Your task to perform on an android device: Go to Google Image 0: 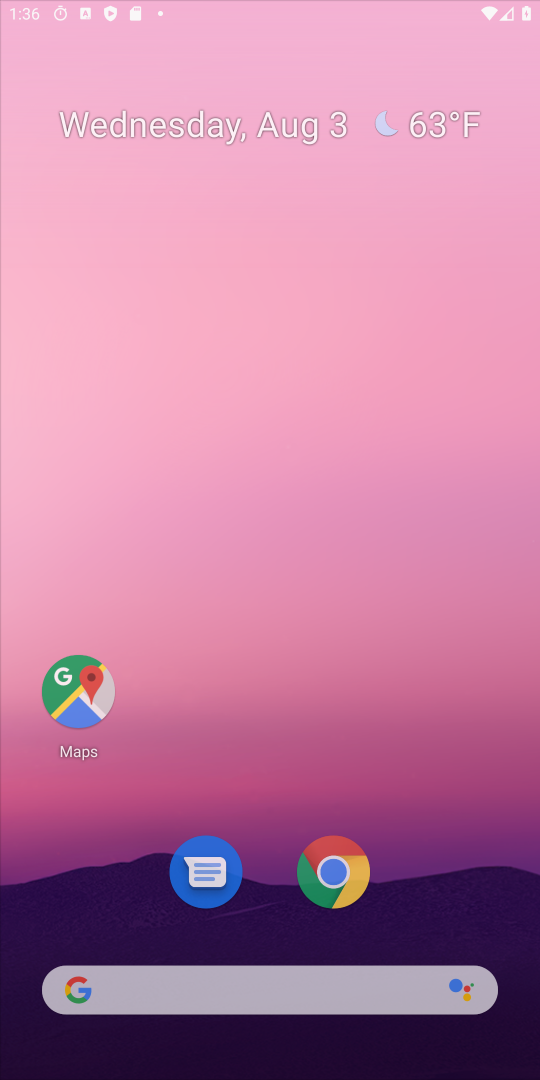
Step 0: press home button
Your task to perform on an android device: Go to Google Image 1: 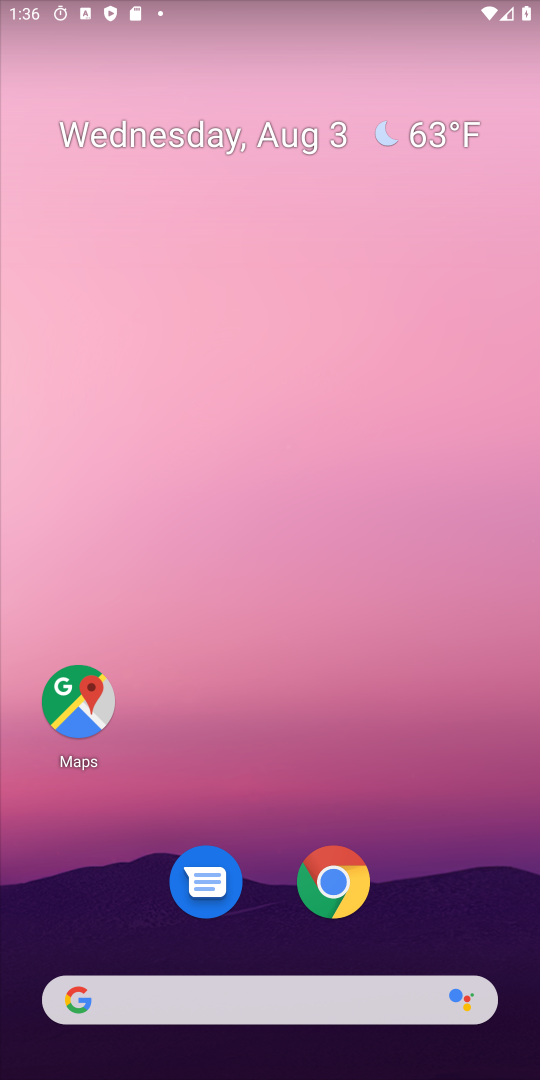
Step 1: drag from (279, 692) to (343, 93)
Your task to perform on an android device: Go to Google Image 2: 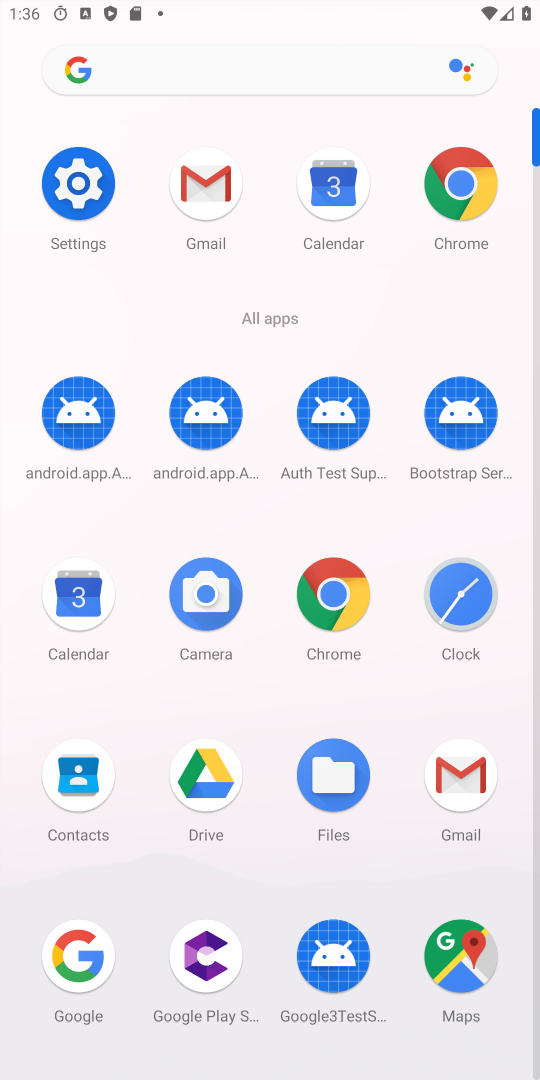
Step 2: click (96, 963)
Your task to perform on an android device: Go to Google Image 3: 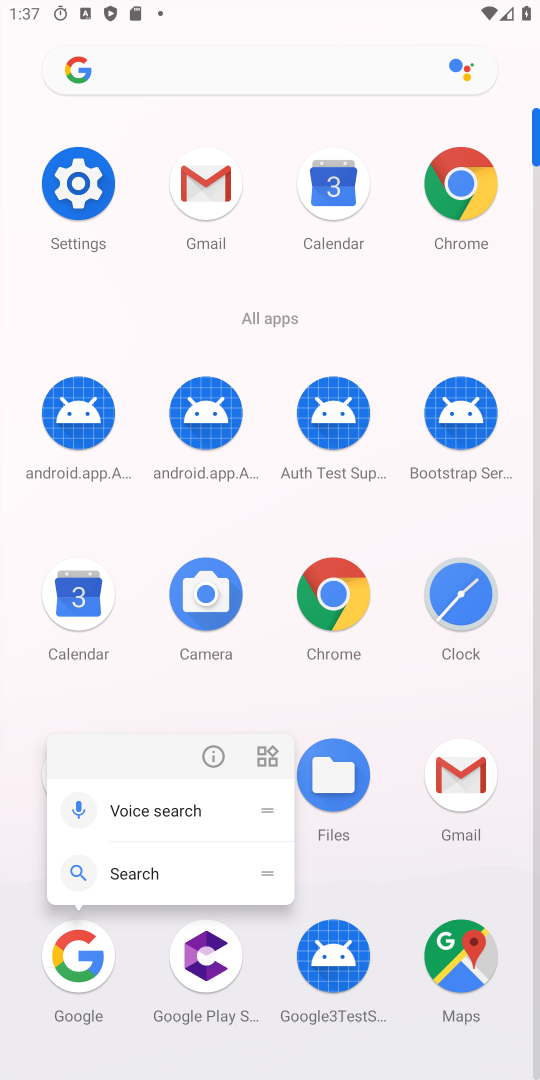
Step 3: click (58, 957)
Your task to perform on an android device: Go to Google Image 4: 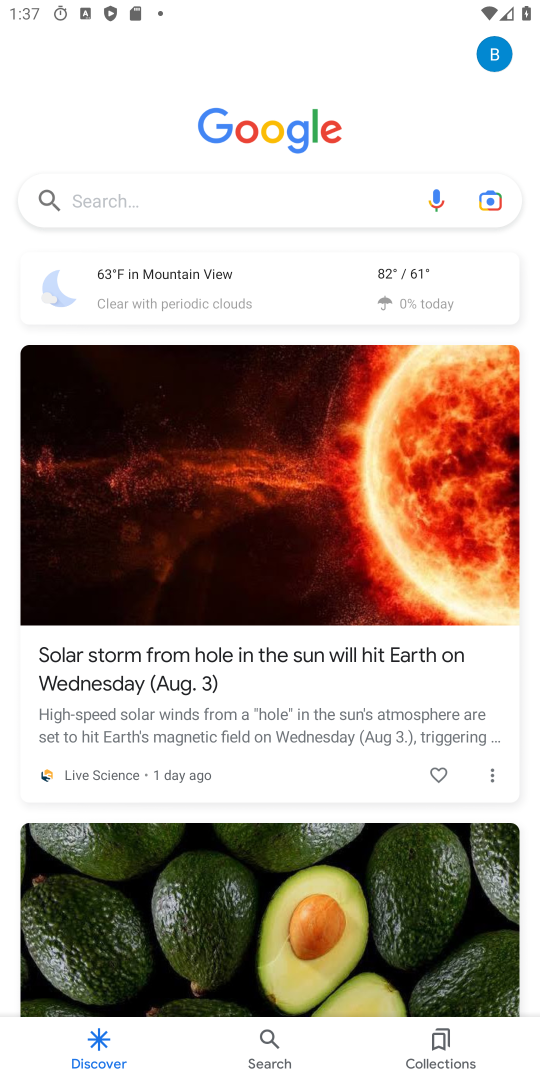
Step 4: task complete